Your task to perform on an android device: Do I have any events this weekend? Image 0: 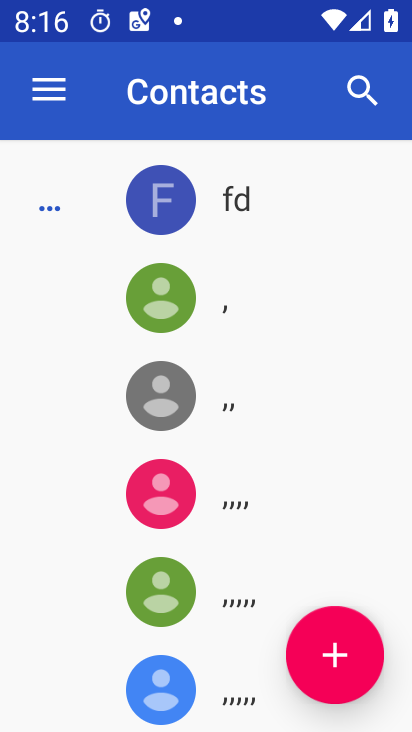
Step 0: press home button
Your task to perform on an android device: Do I have any events this weekend? Image 1: 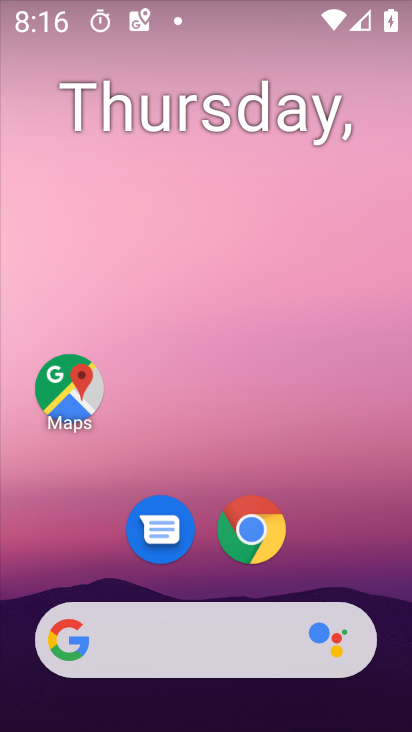
Step 1: drag from (396, 705) to (339, 74)
Your task to perform on an android device: Do I have any events this weekend? Image 2: 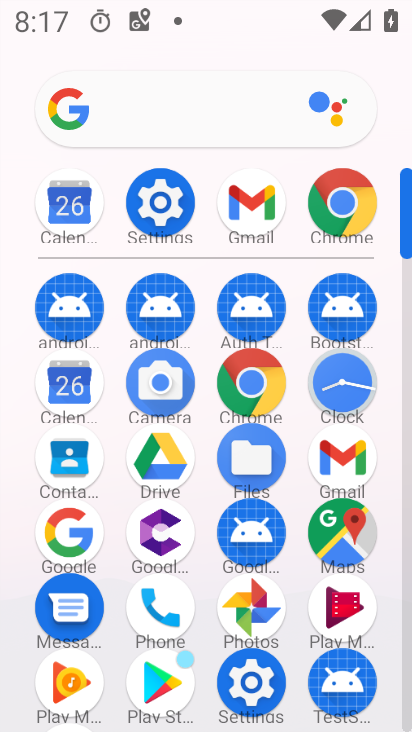
Step 2: click (63, 389)
Your task to perform on an android device: Do I have any events this weekend? Image 3: 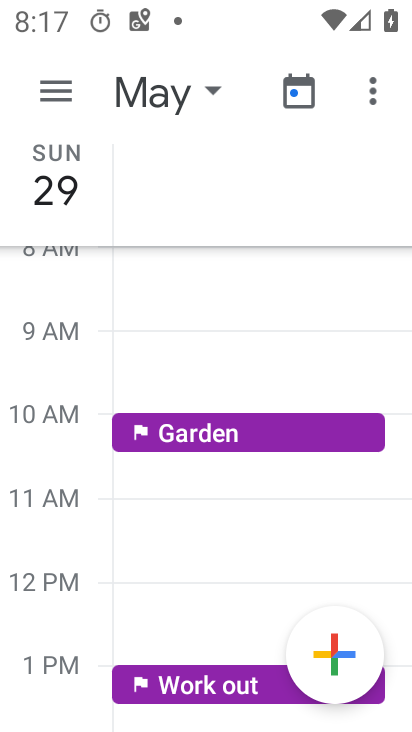
Step 3: click (54, 92)
Your task to perform on an android device: Do I have any events this weekend? Image 4: 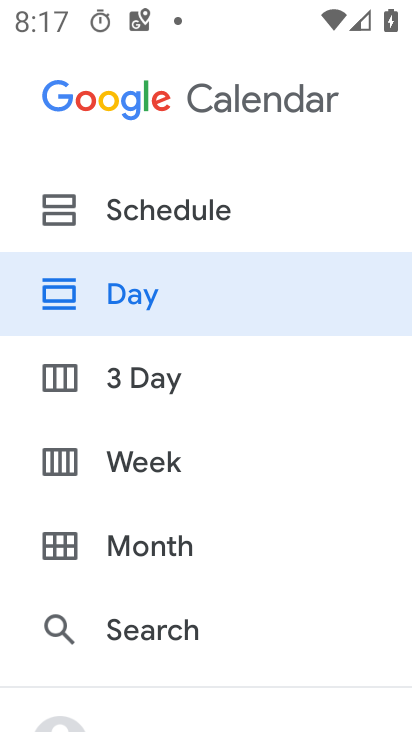
Step 4: click (121, 460)
Your task to perform on an android device: Do I have any events this weekend? Image 5: 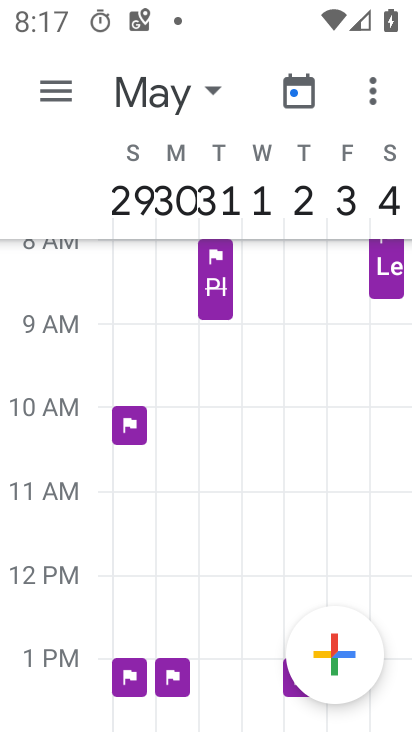
Step 5: click (60, 94)
Your task to perform on an android device: Do I have any events this weekend? Image 6: 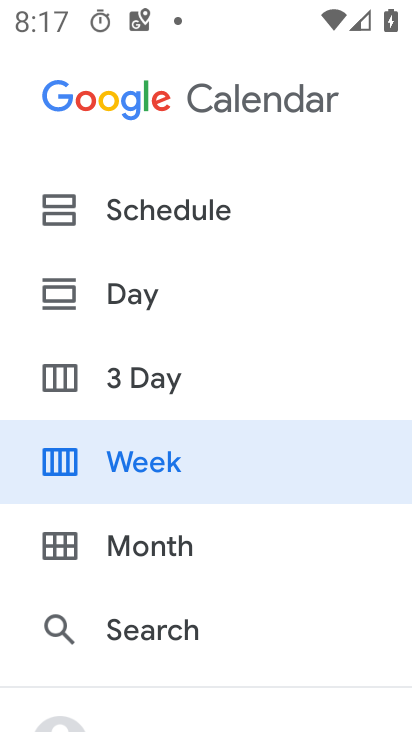
Step 6: click (156, 213)
Your task to perform on an android device: Do I have any events this weekend? Image 7: 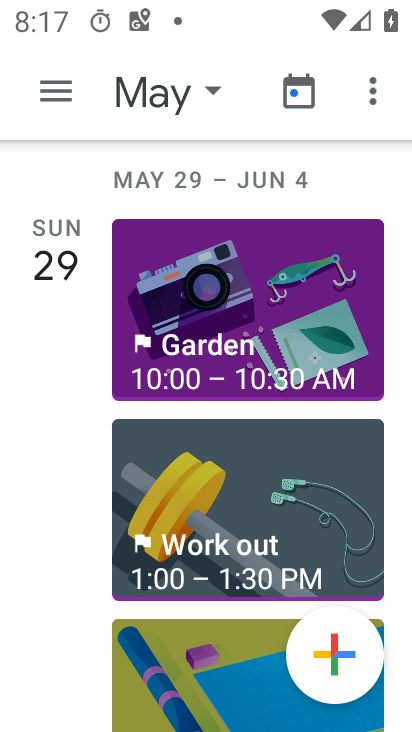
Step 7: task complete